Your task to perform on an android device: Go to network settings Image 0: 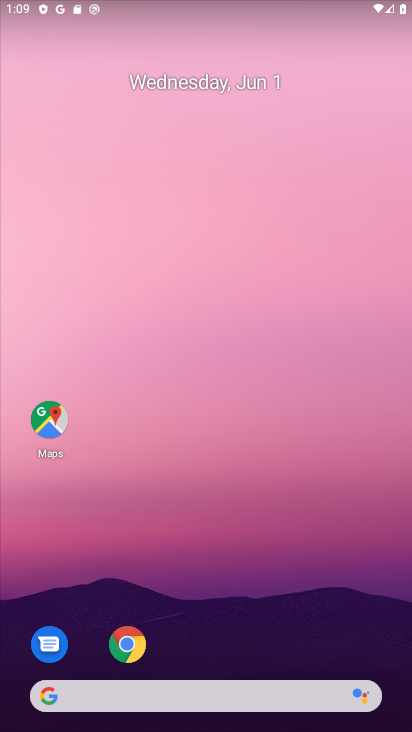
Step 0: press home button
Your task to perform on an android device: Go to network settings Image 1: 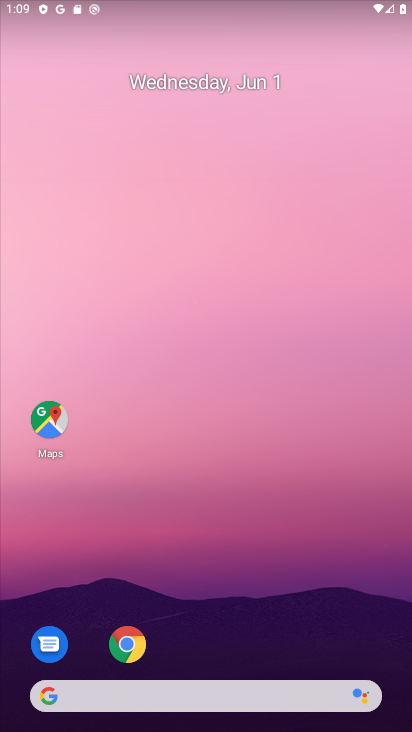
Step 1: drag from (152, 698) to (316, 209)
Your task to perform on an android device: Go to network settings Image 2: 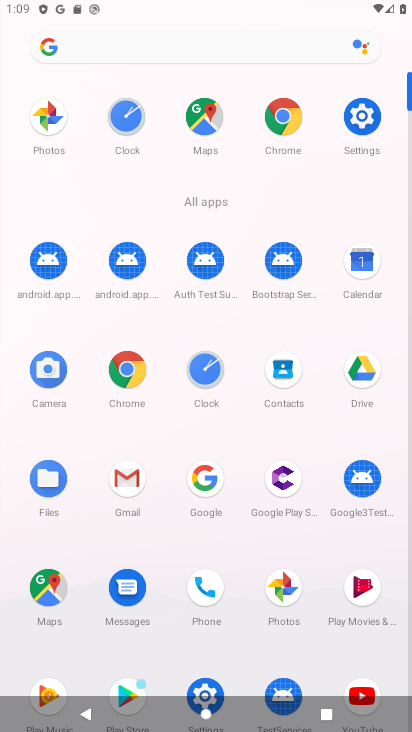
Step 2: click (359, 123)
Your task to perform on an android device: Go to network settings Image 3: 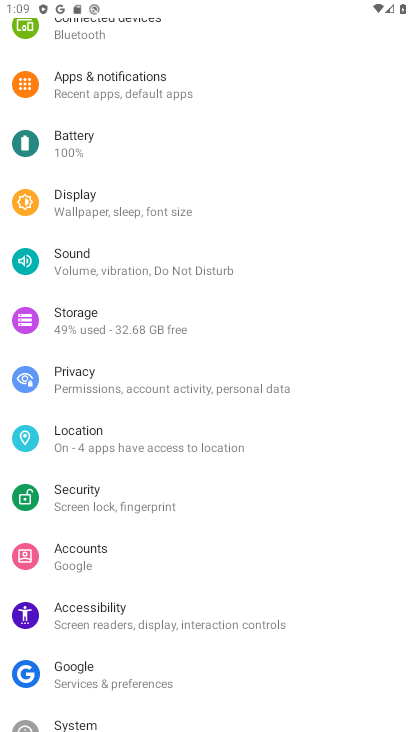
Step 3: drag from (296, 55) to (151, 549)
Your task to perform on an android device: Go to network settings Image 4: 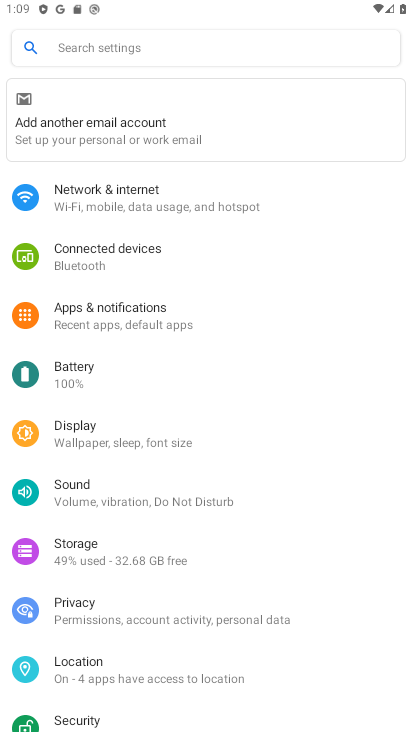
Step 4: click (132, 192)
Your task to perform on an android device: Go to network settings Image 5: 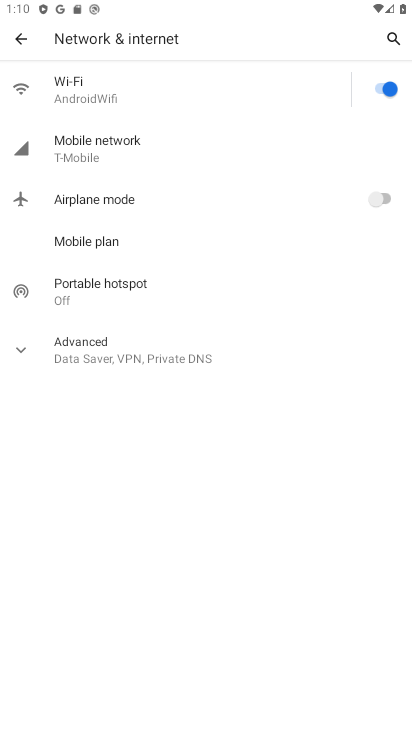
Step 5: task complete